Your task to perform on an android device: change the clock display to show seconds Image 0: 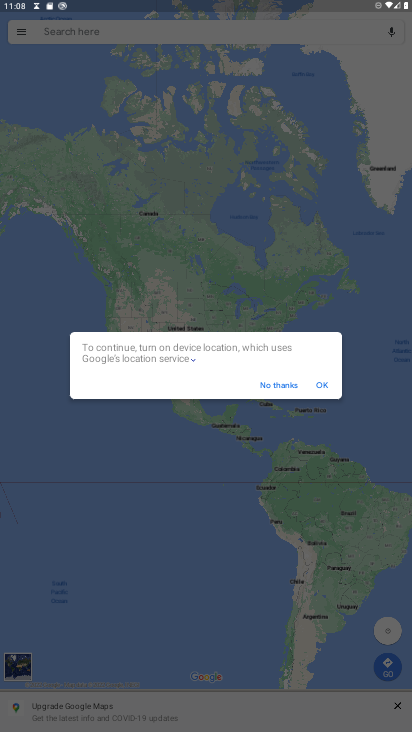
Step 0: press home button
Your task to perform on an android device: change the clock display to show seconds Image 1: 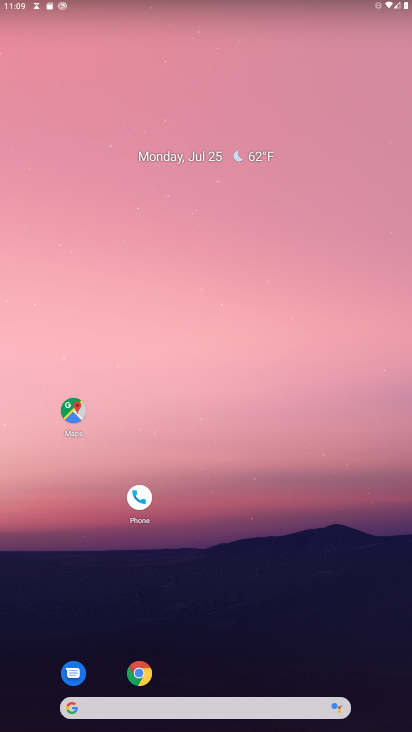
Step 1: drag from (281, 584) to (312, 99)
Your task to perform on an android device: change the clock display to show seconds Image 2: 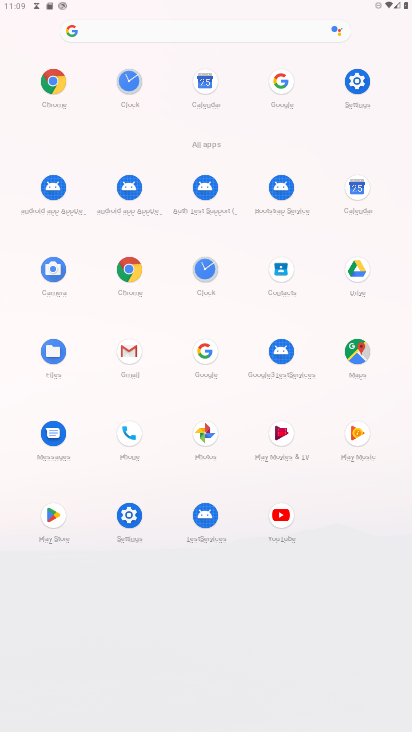
Step 2: click (197, 268)
Your task to perform on an android device: change the clock display to show seconds Image 3: 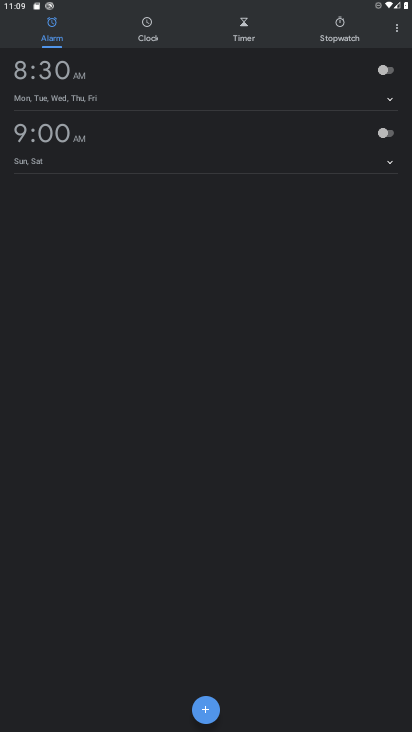
Step 3: click (396, 24)
Your task to perform on an android device: change the clock display to show seconds Image 4: 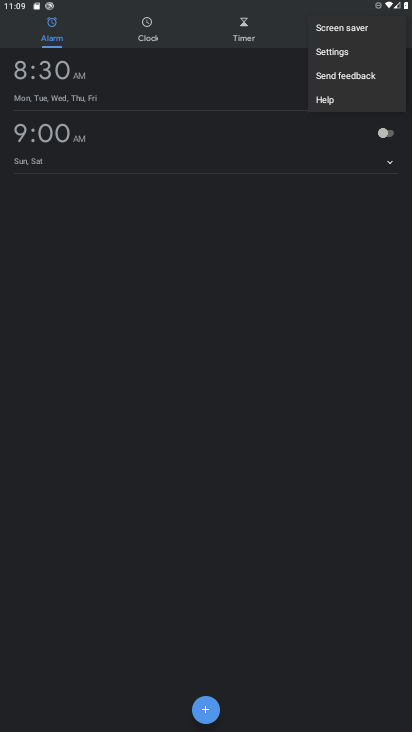
Step 4: click (340, 57)
Your task to perform on an android device: change the clock display to show seconds Image 5: 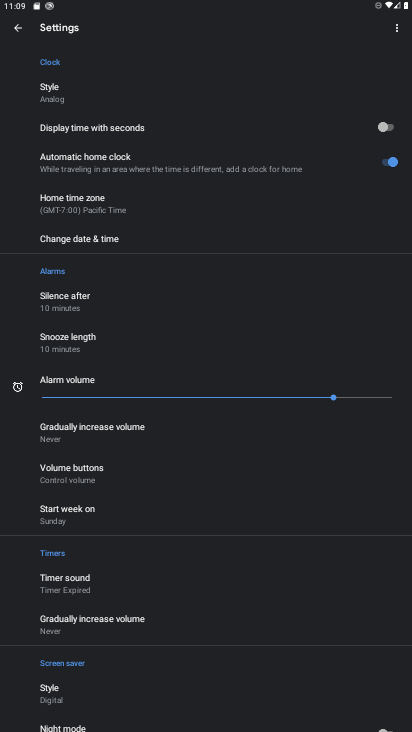
Step 5: click (384, 127)
Your task to perform on an android device: change the clock display to show seconds Image 6: 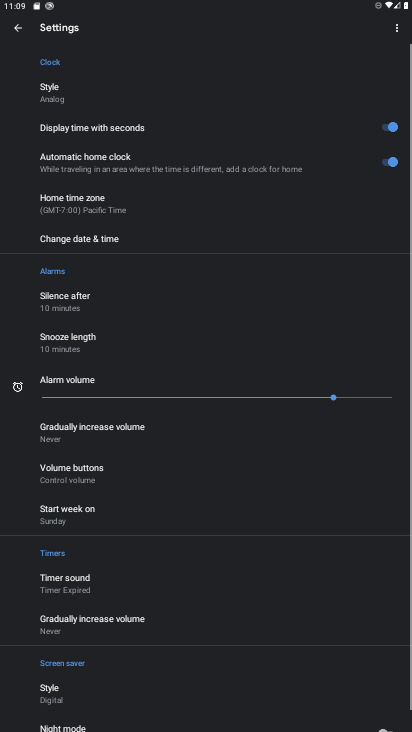
Step 6: task complete